Your task to perform on an android device: turn notification dots on Image 0: 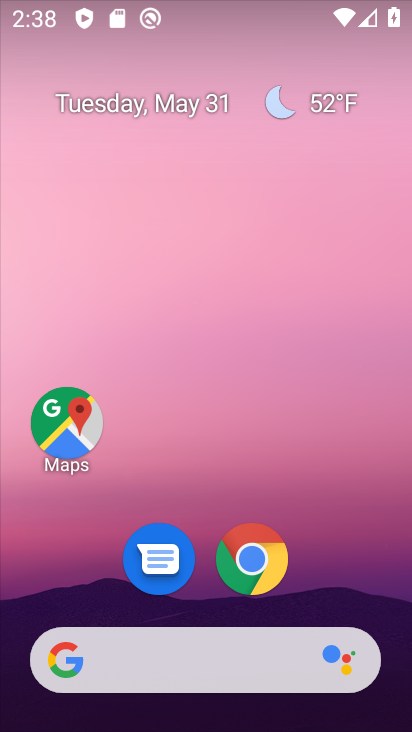
Step 0: drag from (198, 617) to (190, 107)
Your task to perform on an android device: turn notification dots on Image 1: 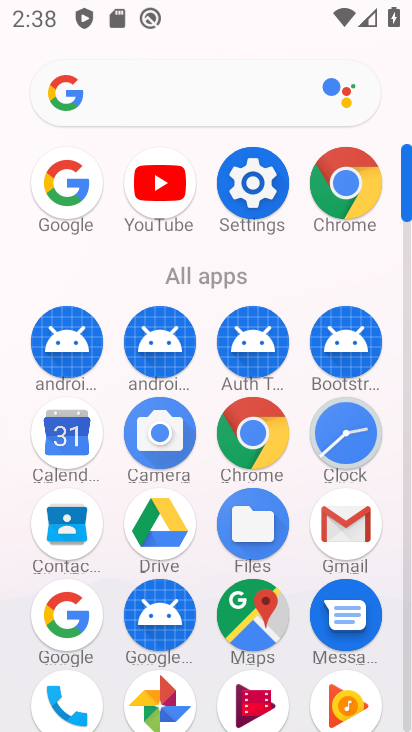
Step 1: click (243, 167)
Your task to perform on an android device: turn notification dots on Image 2: 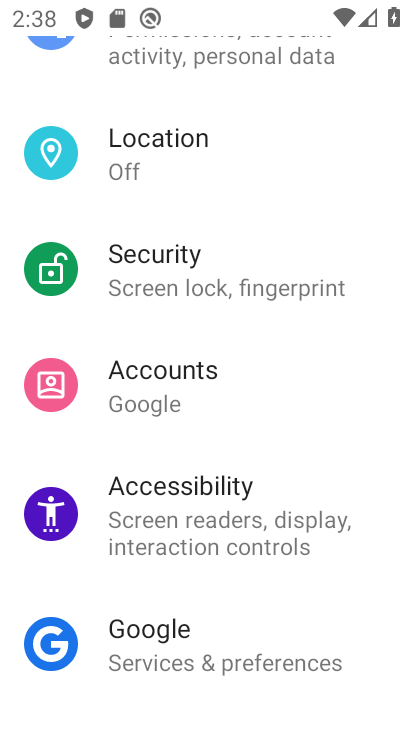
Step 2: drag from (226, 137) to (237, 509)
Your task to perform on an android device: turn notification dots on Image 3: 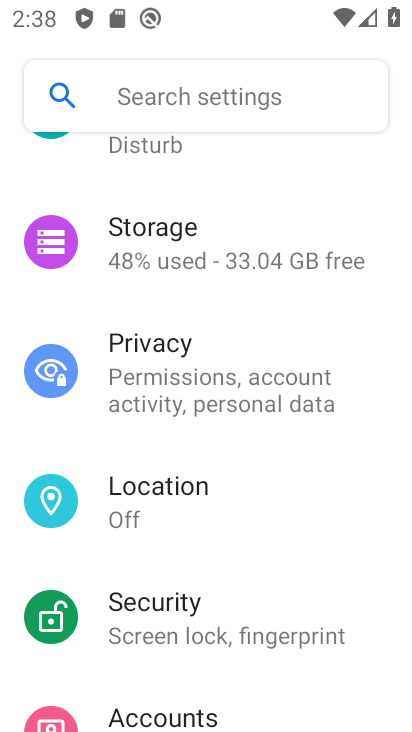
Step 3: drag from (218, 222) to (219, 525)
Your task to perform on an android device: turn notification dots on Image 4: 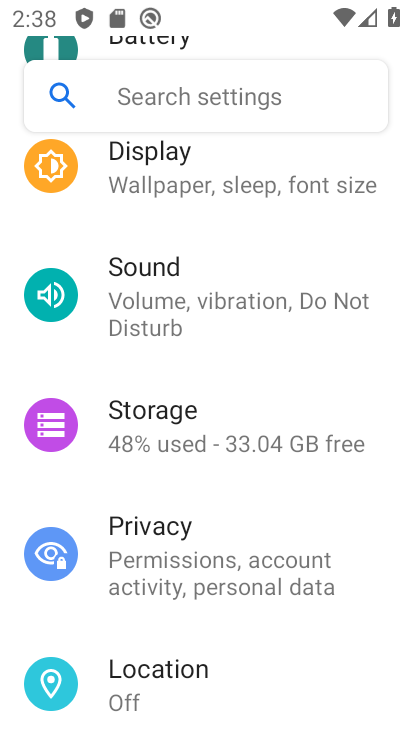
Step 4: drag from (213, 294) to (216, 578)
Your task to perform on an android device: turn notification dots on Image 5: 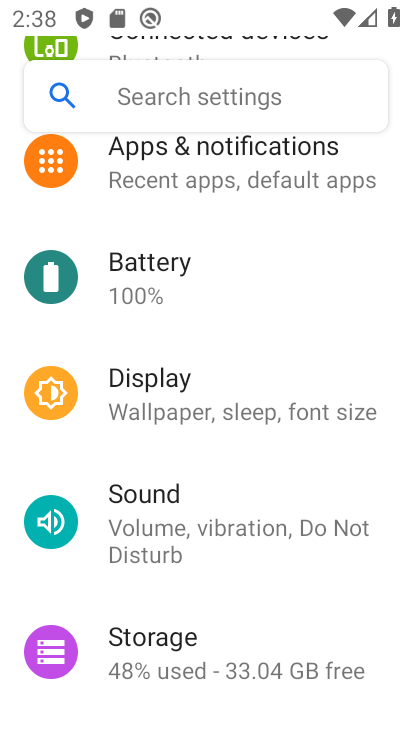
Step 5: click (211, 169)
Your task to perform on an android device: turn notification dots on Image 6: 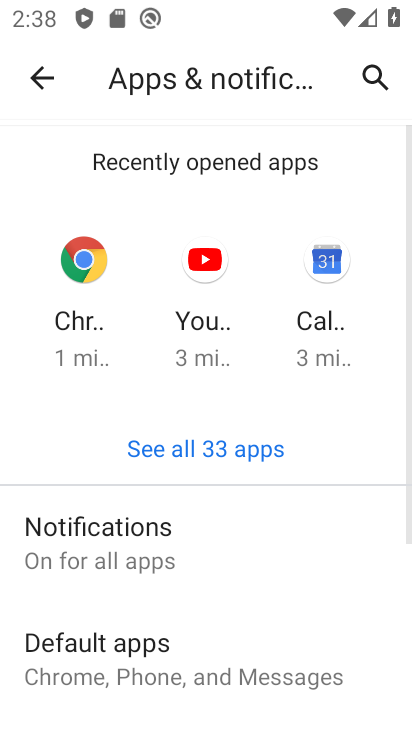
Step 6: click (158, 553)
Your task to perform on an android device: turn notification dots on Image 7: 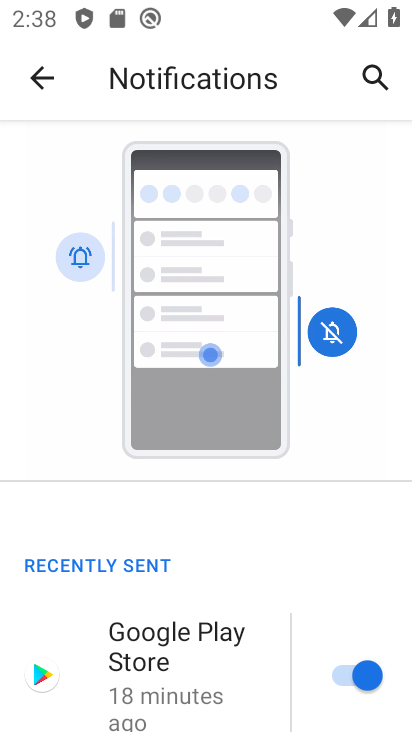
Step 7: drag from (173, 684) to (166, 306)
Your task to perform on an android device: turn notification dots on Image 8: 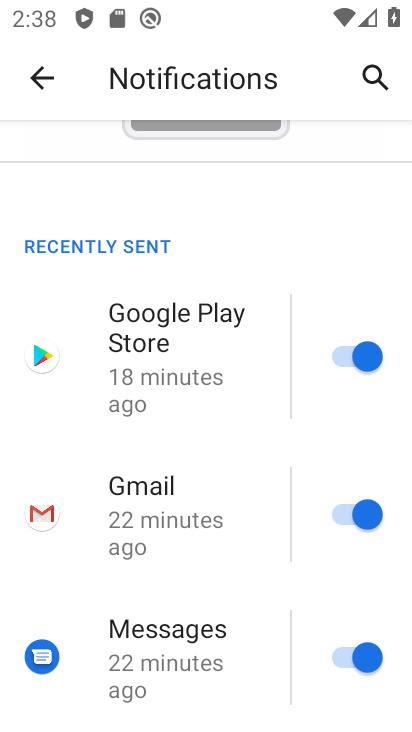
Step 8: drag from (171, 594) to (197, 297)
Your task to perform on an android device: turn notification dots on Image 9: 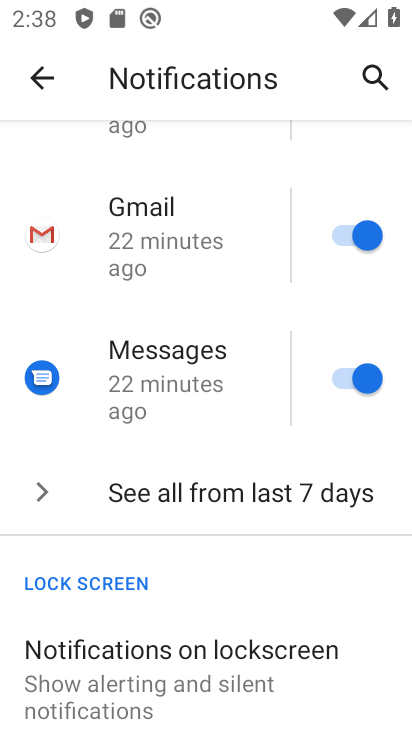
Step 9: drag from (199, 569) to (204, 275)
Your task to perform on an android device: turn notification dots on Image 10: 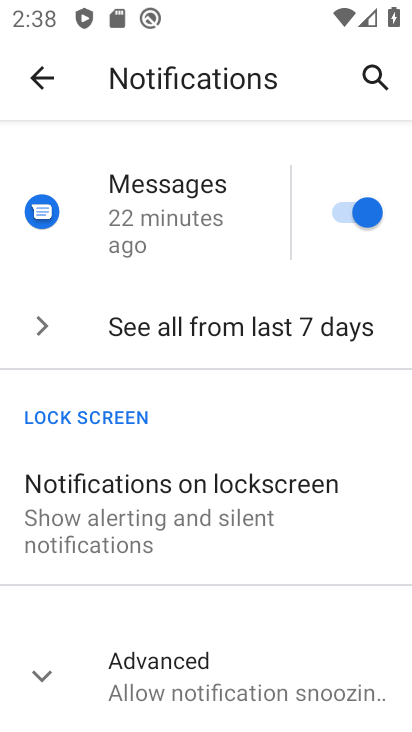
Step 10: click (197, 662)
Your task to perform on an android device: turn notification dots on Image 11: 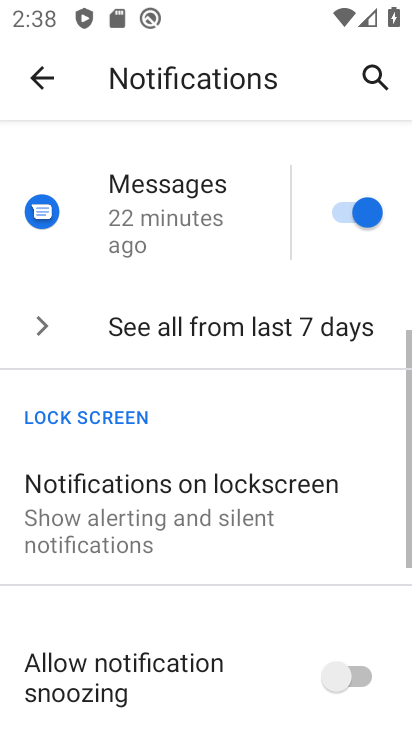
Step 11: task complete